Your task to perform on an android device: open app "LiveIn - Share Your Moment" (install if not already installed) and go to login screen Image 0: 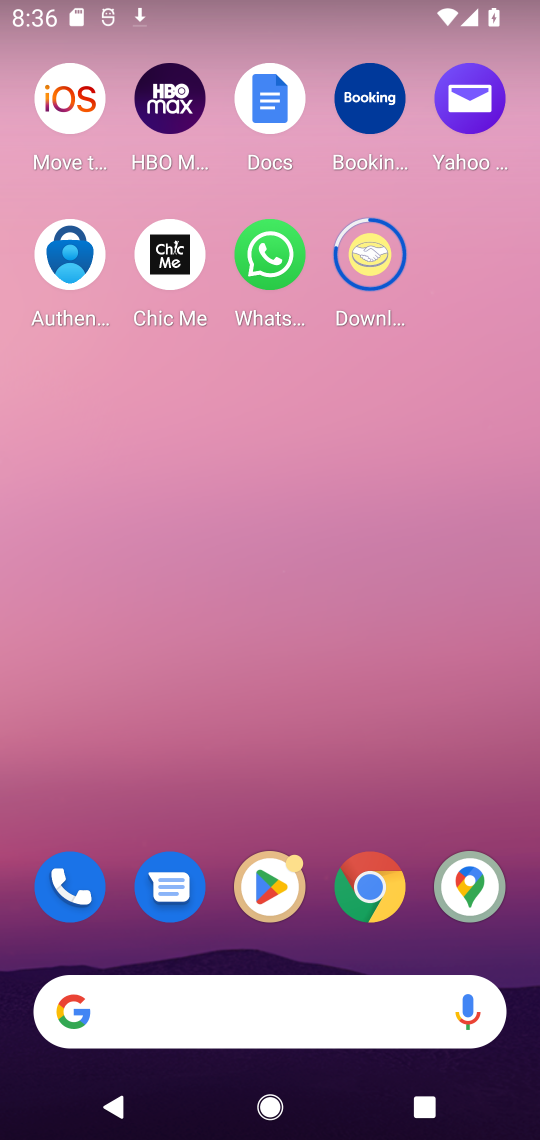
Step 0: click (273, 915)
Your task to perform on an android device: open app "LiveIn - Share Your Moment" (install if not already installed) and go to login screen Image 1: 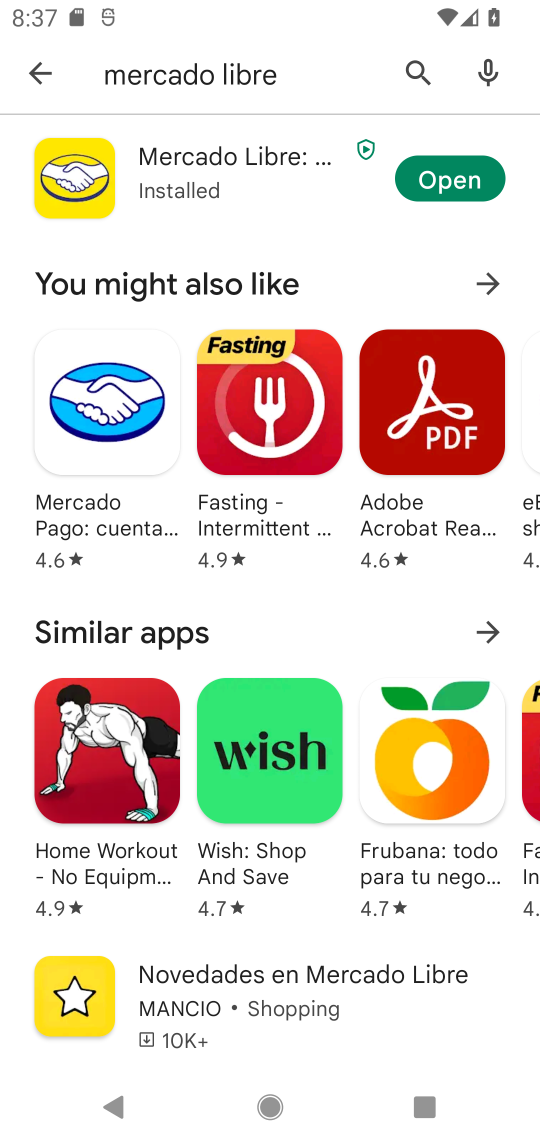
Step 1: click (436, 84)
Your task to perform on an android device: open app "LiveIn - Share Your Moment" (install if not already installed) and go to login screen Image 2: 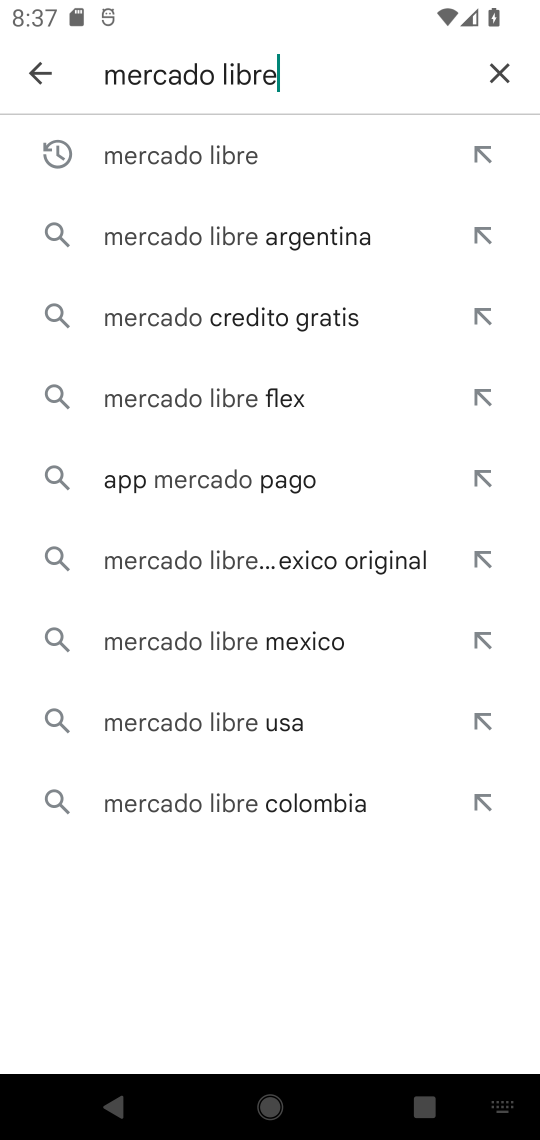
Step 2: click (500, 84)
Your task to perform on an android device: open app "LiveIn - Share Your Moment" (install if not already installed) and go to login screen Image 3: 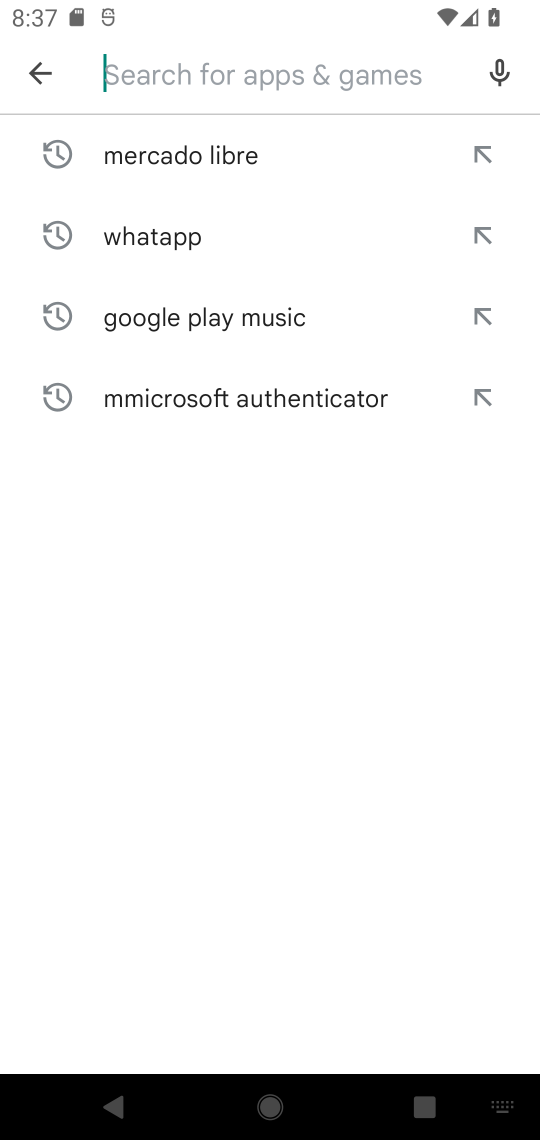
Step 3: type "livein"
Your task to perform on an android device: open app "LiveIn - Share Your Moment" (install if not already installed) and go to login screen Image 4: 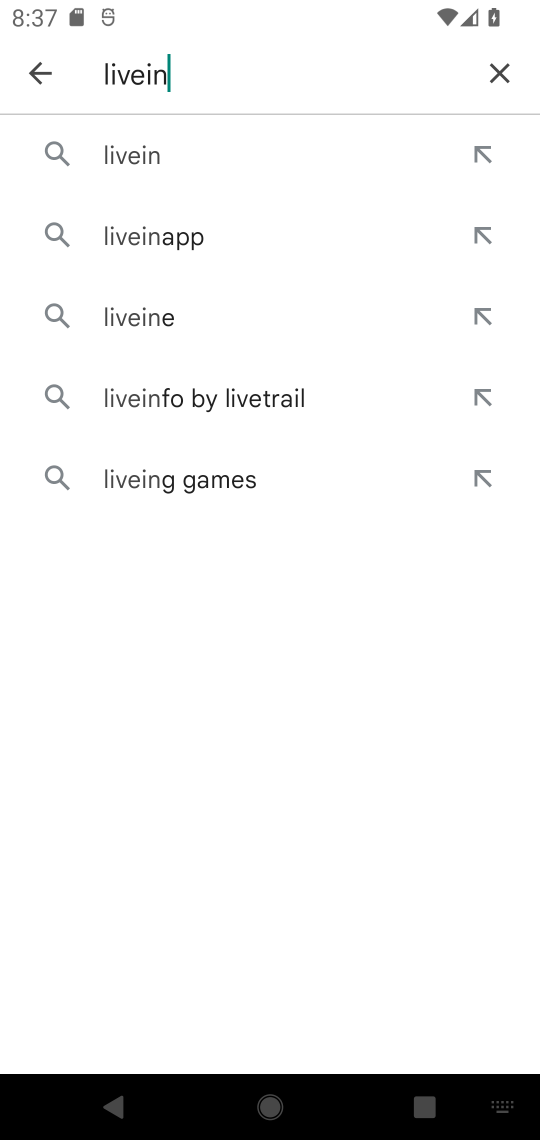
Step 4: click (168, 181)
Your task to perform on an android device: open app "LiveIn - Share Your Moment" (install if not already installed) and go to login screen Image 5: 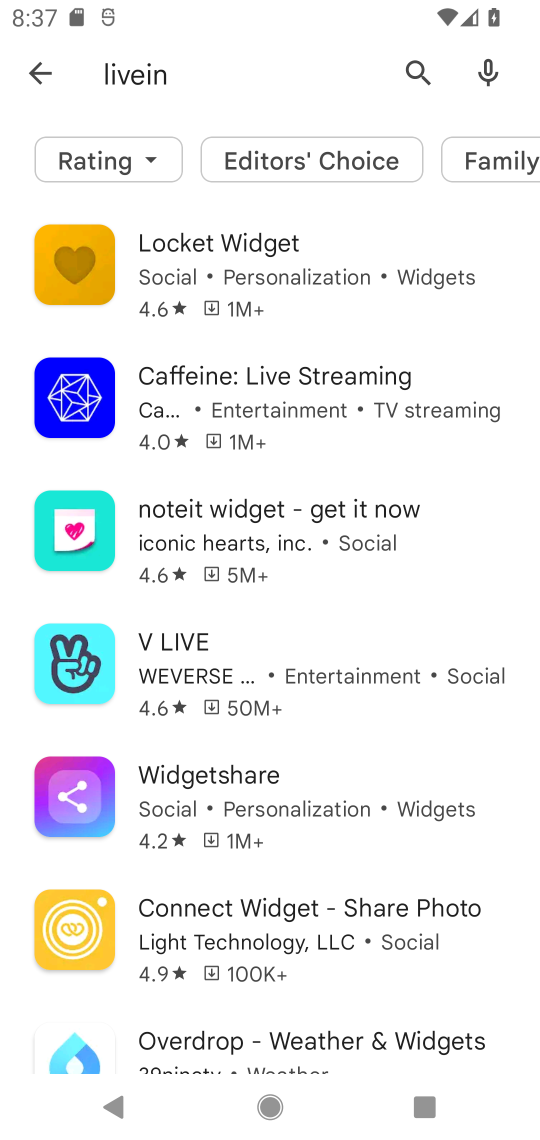
Step 5: task complete